Your task to perform on an android device: Search for vegetarian restaurants on Maps Image 0: 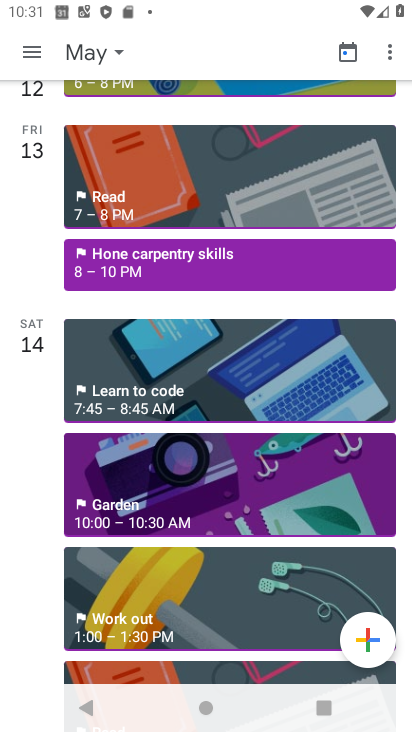
Step 0: press home button
Your task to perform on an android device: Search for vegetarian restaurants on Maps Image 1: 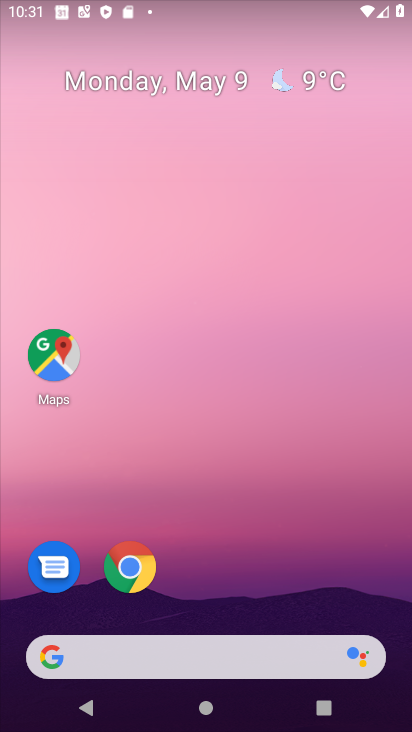
Step 1: drag from (212, 613) to (263, 39)
Your task to perform on an android device: Search for vegetarian restaurants on Maps Image 2: 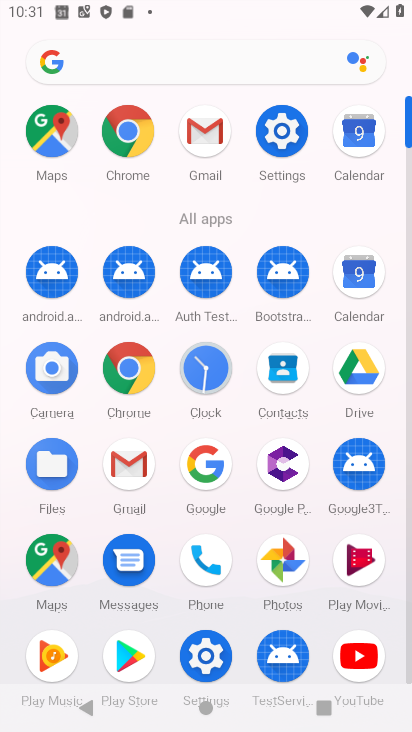
Step 2: click (56, 130)
Your task to perform on an android device: Search for vegetarian restaurants on Maps Image 3: 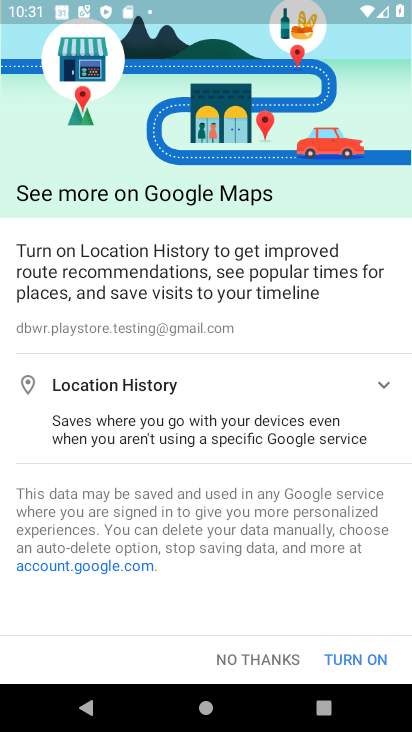
Step 3: click (373, 661)
Your task to perform on an android device: Search for vegetarian restaurants on Maps Image 4: 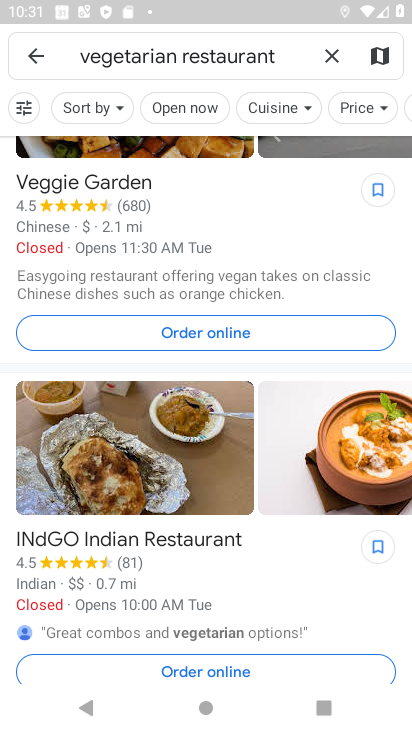
Step 4: task complete